Your task to perform on an android device: Open sound settings Image 0: 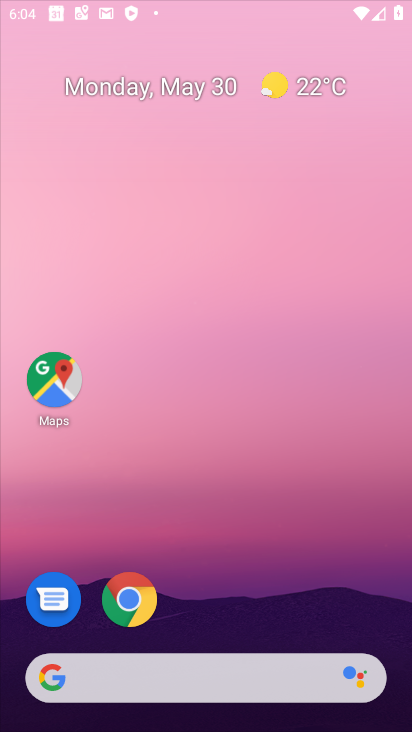
Step 0: press home button
Your task to perform on an android device: Open sound settings Image 1: 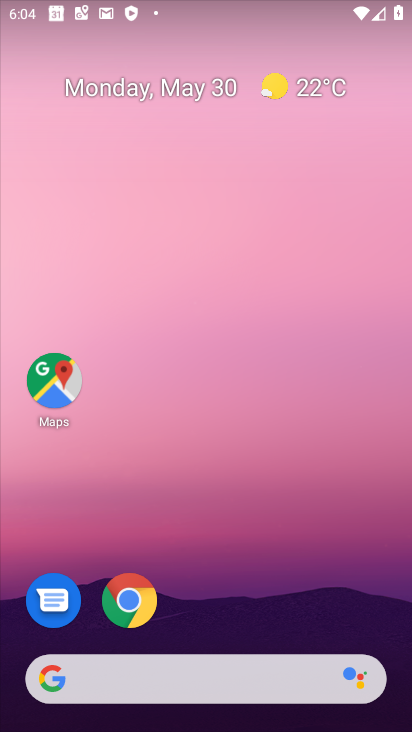
Step 1: drag from (195, 423) to (195, 109)
Your task to perform on an android device: Open sound settings Image 2: 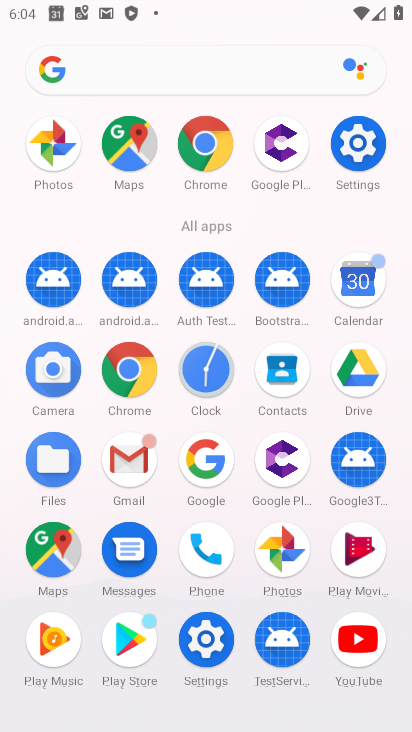
Step 2: click (371, 140)
Your task to perform on an android device: Open sound settings Image 3: 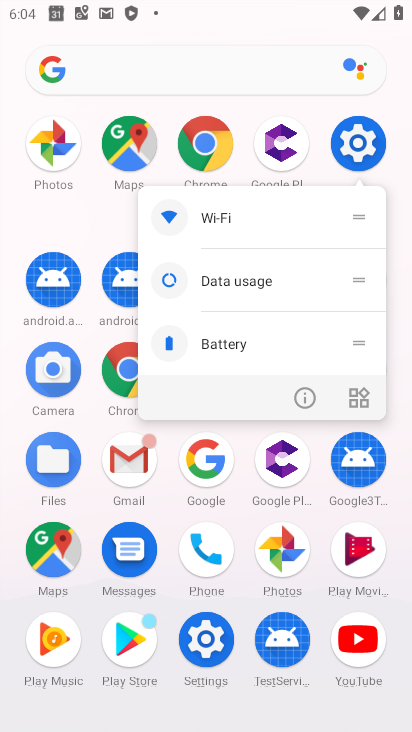
Step 3: click (374, 138)
Your task to perform on an android device: Open sound settings Image 4: 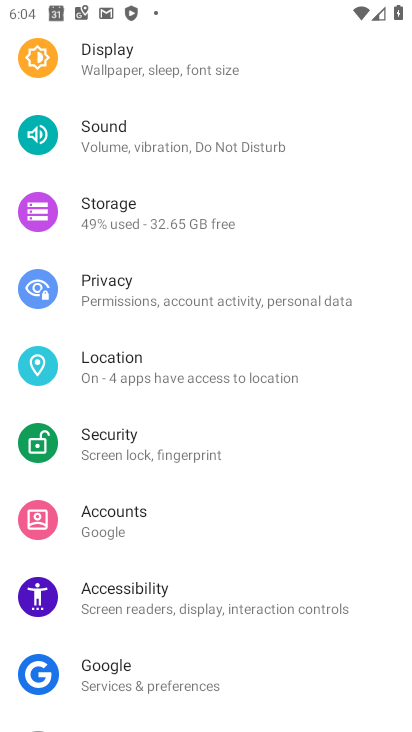
Step 4: click (117, 134)
Your task to perform on an android device: Open sound settings Image 5: 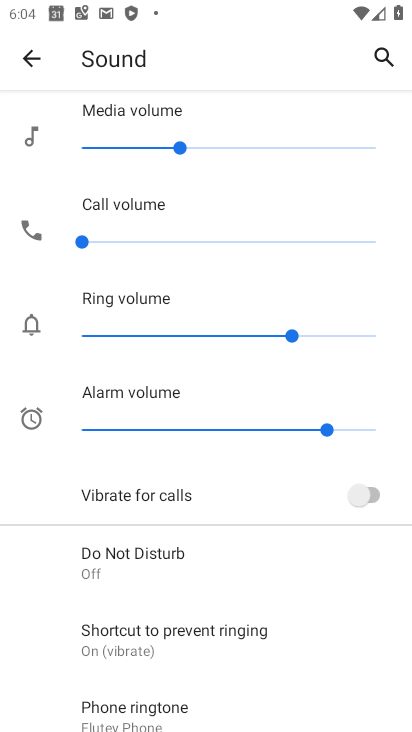
Step 5: task complete